Your task to perform on an android device: open the mobile data screen to see how much data has been used Image 0: 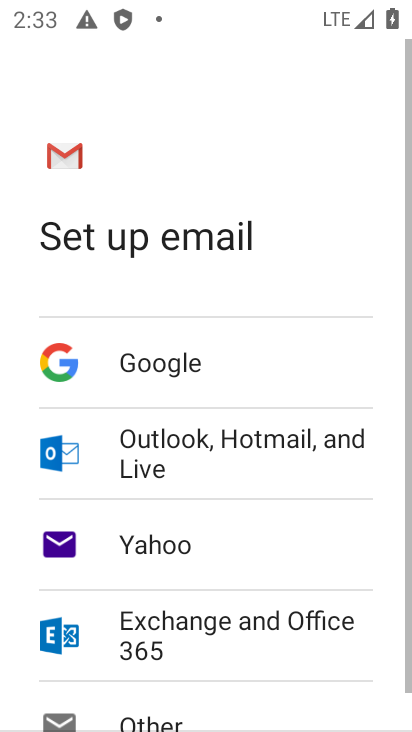
Step 0: press home button
Your task to perform on an android device: open the mobile data screen to see how much data has been used Image 1: 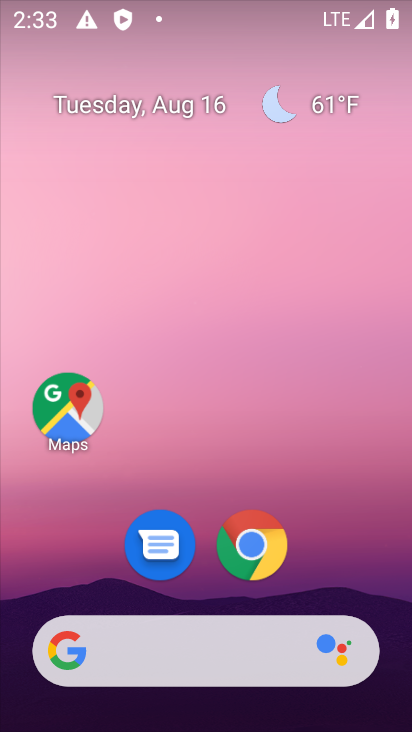
Step 1: drag from (142, 523) to (133, 258)
Your task to perform on an android device: open the mobile data screen to see how much data has been used Image 2: 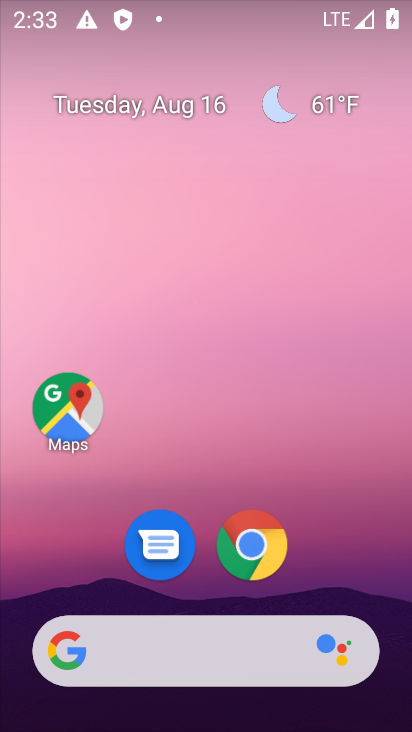
Step 2: drag from (163, 638) to (153, 176)
Your task to perform on an android device: open the mobile data screen to see how much data has been used Image 3: 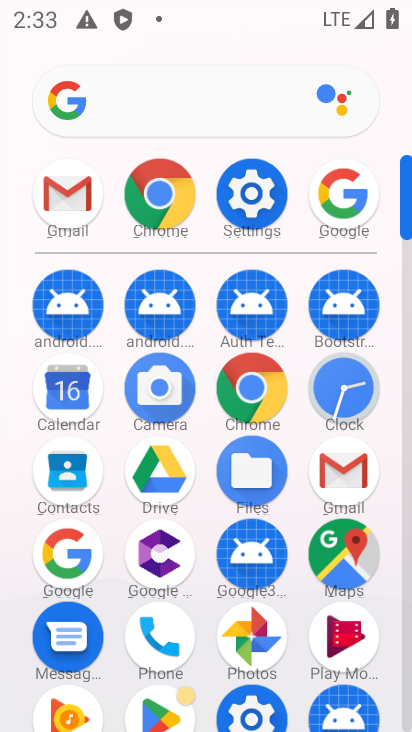
Step 3: click (276, 181)
Your task to perform on an android device: open the mobile data screen to see how much data has been used Image 4: 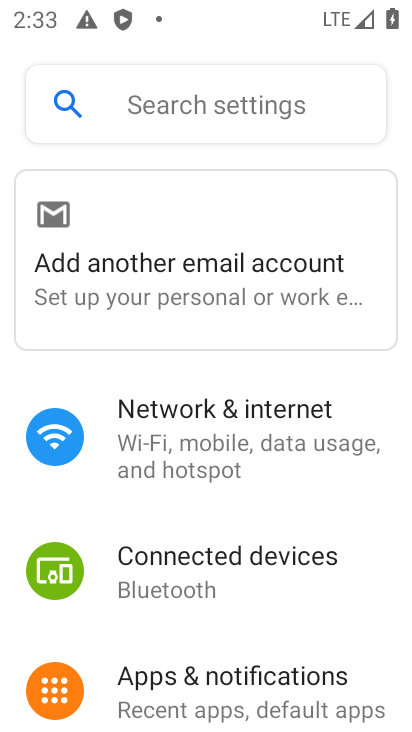
Step 4: click (241, 457)
Your task to perform on an android device: open the mobile data screen to see how much data has been used Image 5: 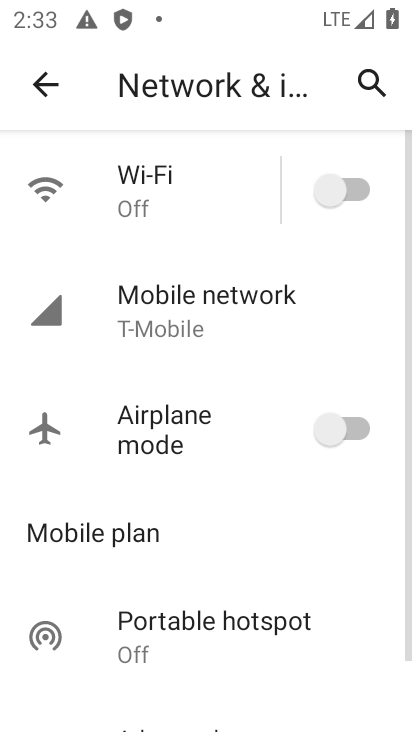
Step 5: click (108, 335)
Your task to perform on an android device: open the mobile data screen to see how much data has been used Image 6: 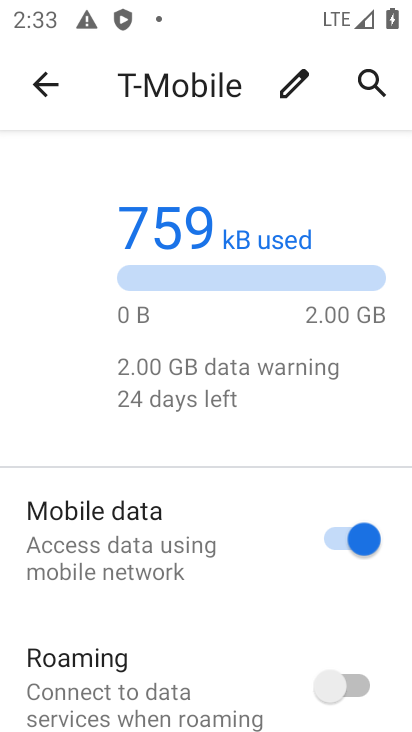
Step 6: task complete